Your task to perform on an android device: Open my contact list Image 0: 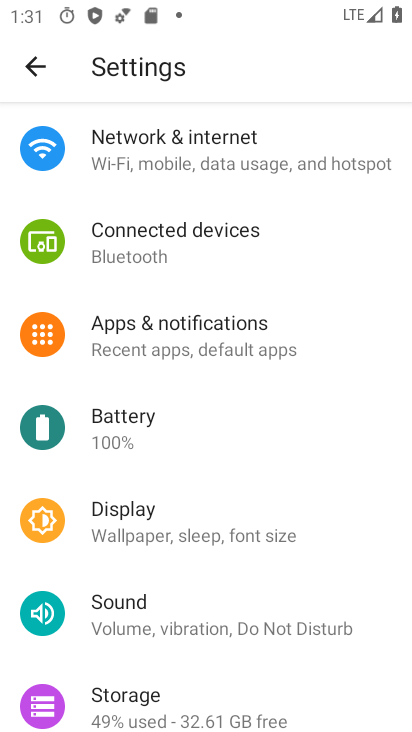
Step 0: press home button
Your task to perform on an android device: Open my contact list Image 1: 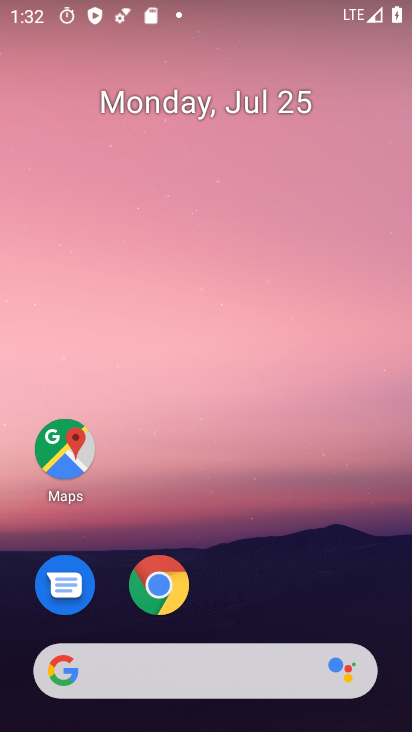
Step 1: drag from (205, 656) to (166, 192)
Your task to perform on an android device: Open my contact list Image 2: 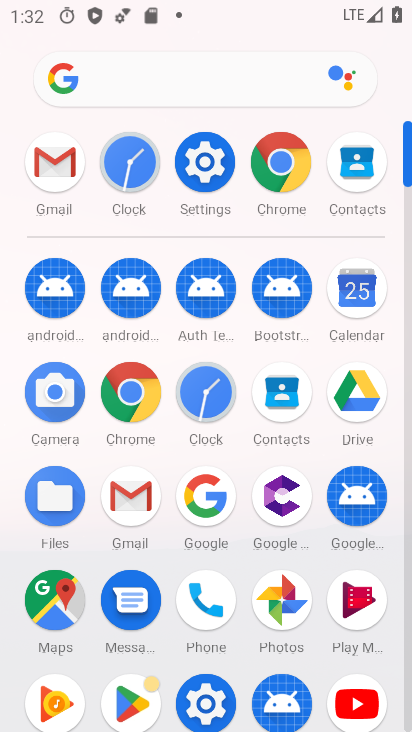
Step 2: click (356, 157)
Your task to perform on an android device: Open my contact list Image 3: 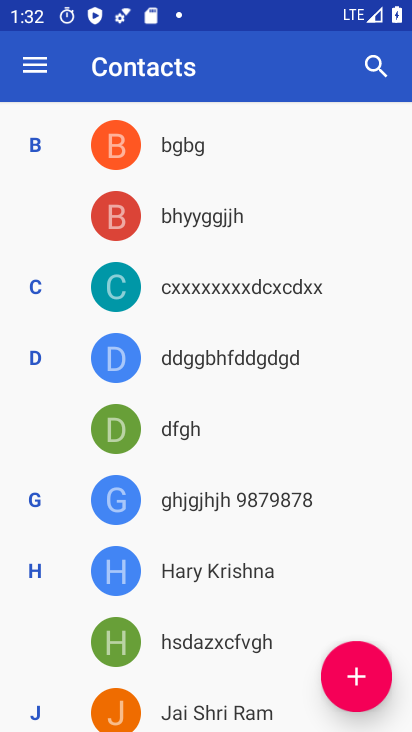
Step 3: task complete